Your task to perform on an android device: Go to Android settings Image 0: 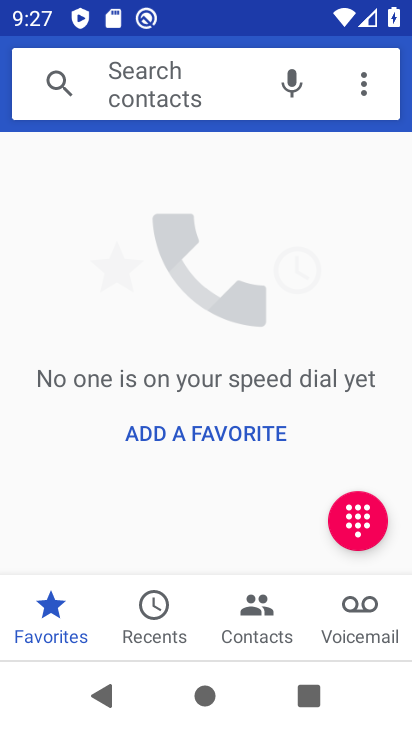
Step 0: press home button
Your task to perform on an android device: Go to Android settings Image 1: 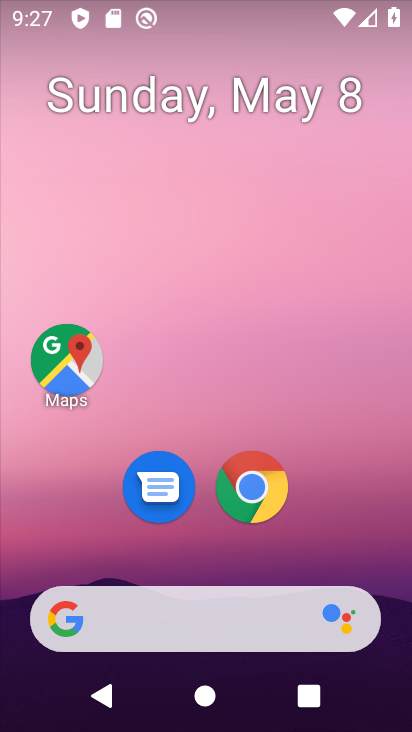
Step 1: drag from (170, 581) to (344, 21)
Your task to perform on an android device: Go to Android settings Image 2: 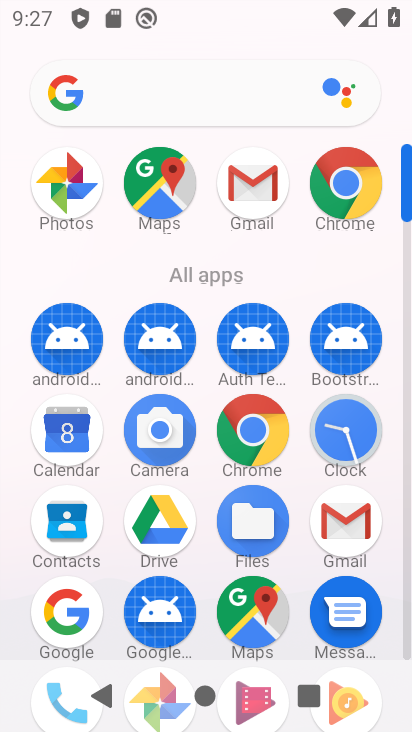
Step 2: drag from (162, 655) to (268, 448)
Your task to perform on an android device: Go to Android settings Image 3: 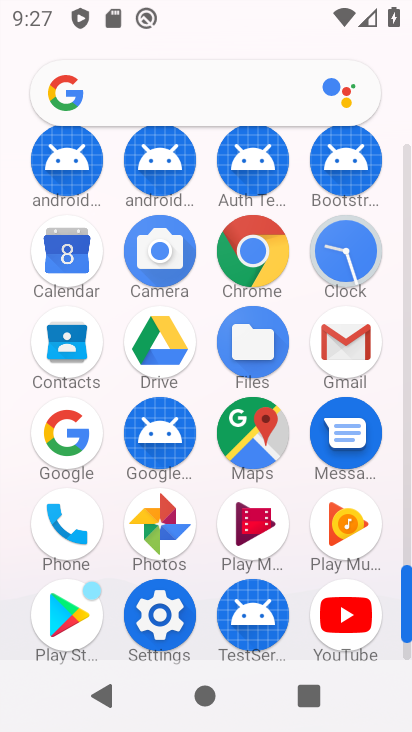
Step 3: click (175, 613)
Your task to perform on an android device: Go to Android settings Image 4: 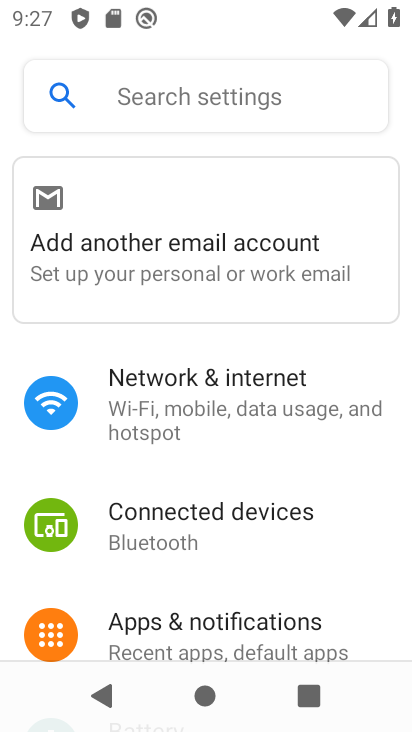
Step 4: task complete